Your task to perform on an android device: turn off notifications in google photos Image 0: 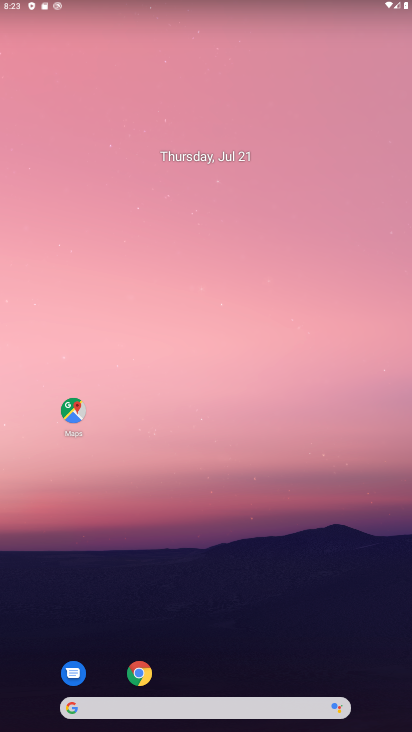
Step 0: drag from (166, 641) to (134, 264)
Your task to perform on an android device: turn off notifications in google photos Image 1: 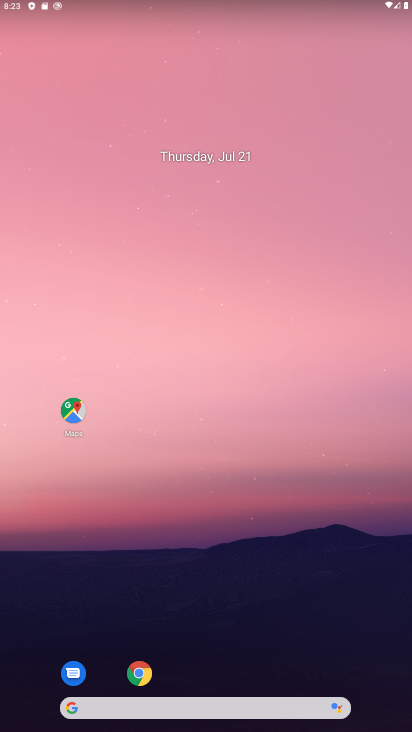
Step 1: drag from (240, 587) to (241, 233)
Your task to perform on an android device: turn off notifications in google photos Image 2: 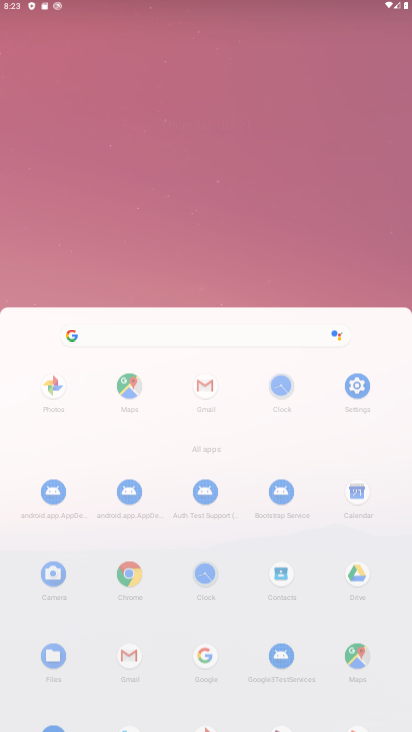
Step 2: drag from (265, 517) to (181, 105)
Your task to perform on an android device: turn off notifications in google photos Image 3: 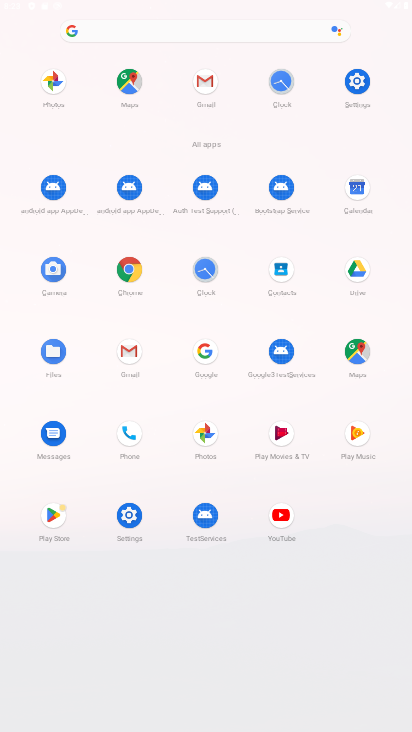
Step 3: drag from (211, 616) to (219, 195)
Your task to perform on an android device: turn off notifications in google photos Image 4: 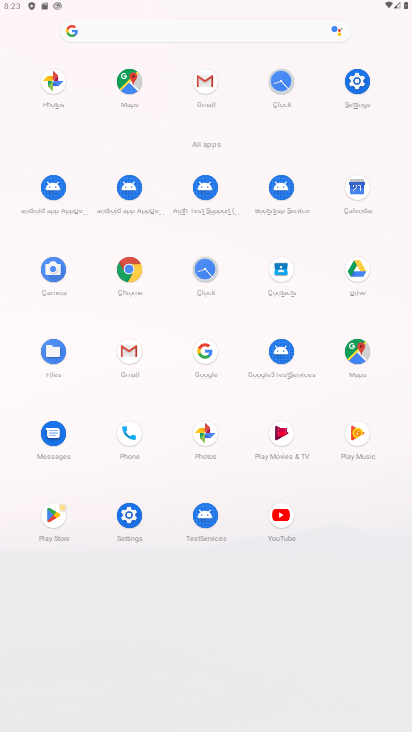
Step 4: click (202, 442)
Your task to perform on an android device: turn off notifications in google photos Image 5: 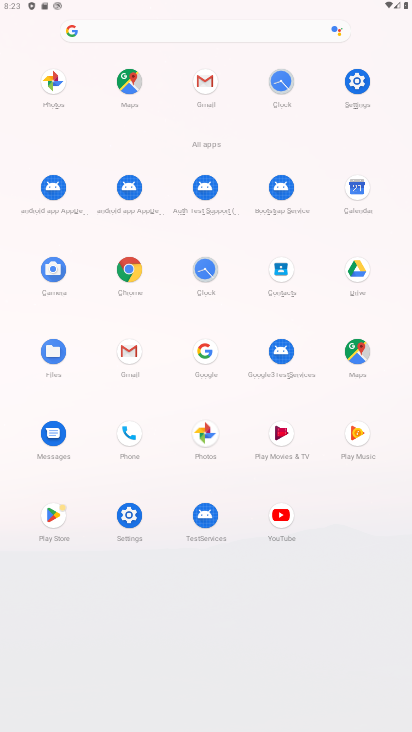
Step 5: click (202, 442)
Your task to perform on an android device: turn off notifications in google photos Image 6: 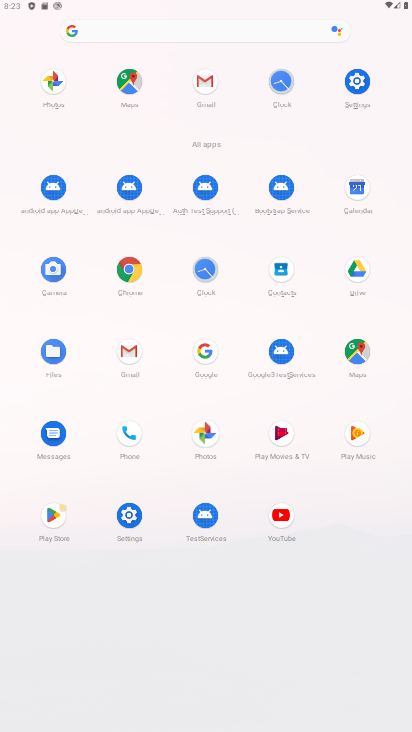
Step 6: click (202, 438)
Your task to perform on an android device: turn off notifications in google photos Image 7: 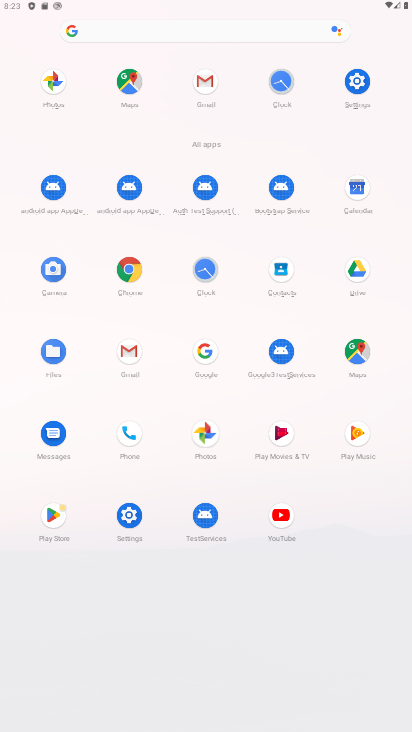
Step 7: click (202, 438)
Your task to perform on an android device: turn off notifications in google photos Image 8: 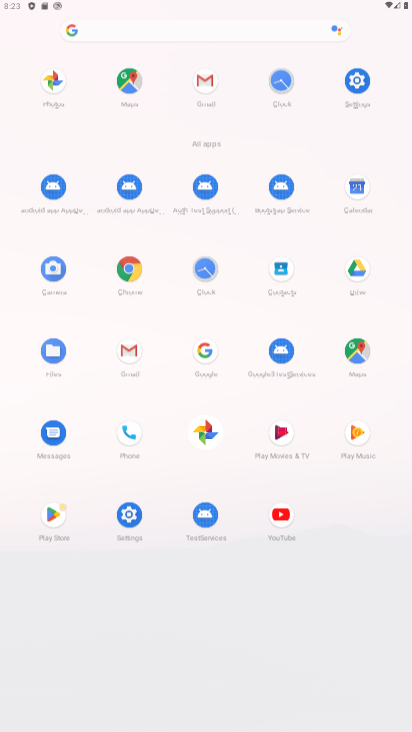
Step 8: click (202, 438)
Your task to perform on an android device: turn off notifications in google photos Image 9: 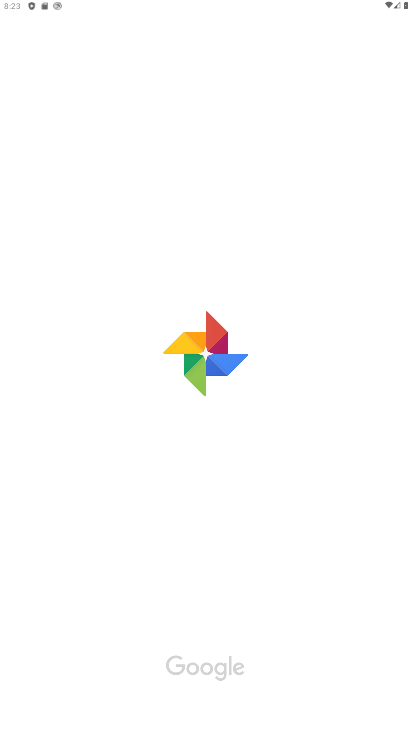
Step 9: click (202, 438)
Your task to perform on an android device: turn off notifications in google photos Image 10: 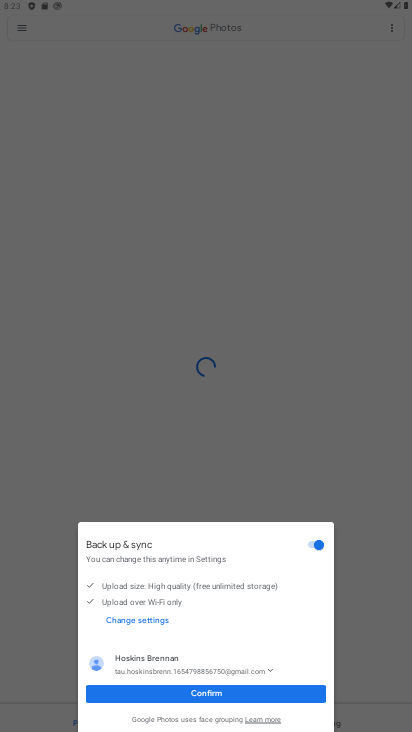
Step 10: click (223, 691)
Your task to perform on an android device: turn off notifications in google photos Image 11: 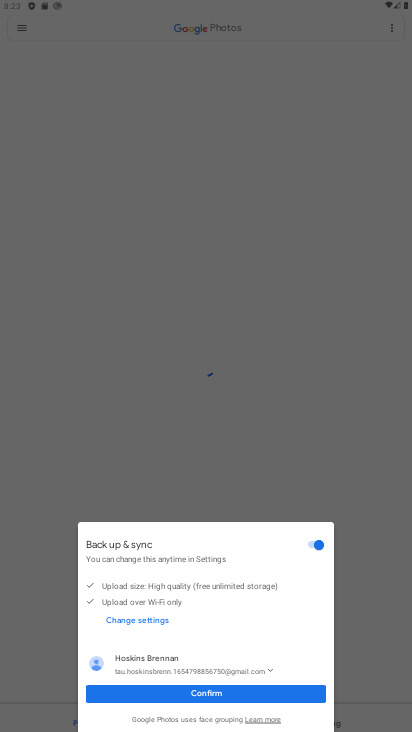
Step 11: click (223, 691)
Your task to perform on an android device: turn off notifications in google photos Image 12: 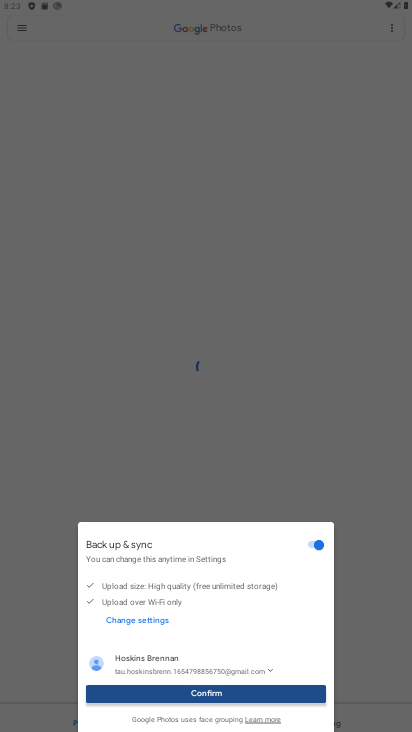
Step 12: click (223, 693)
Your task to perform on an android device: turn off notifications in google photos Image 13: 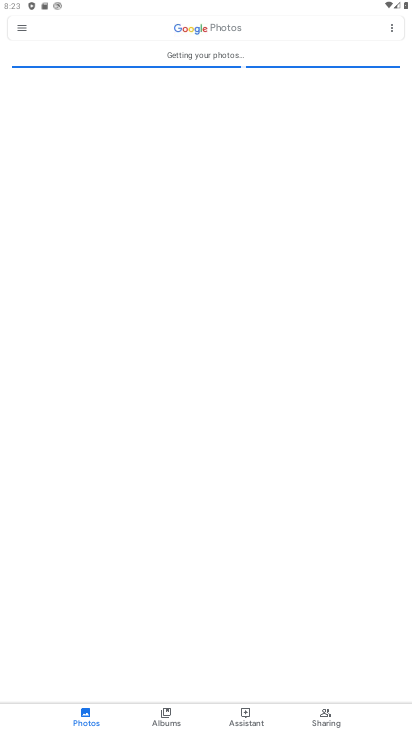
Step 13: click (239, 692)
Your task to perform on an android device: turn off notifications in google photos Image 14: 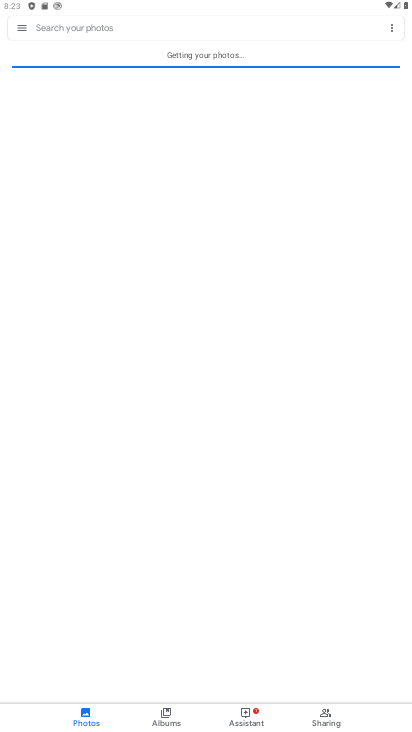
Step 14: click (19, 26)
Your task to perform on an android device: turn off notifications in google photos Image 15: 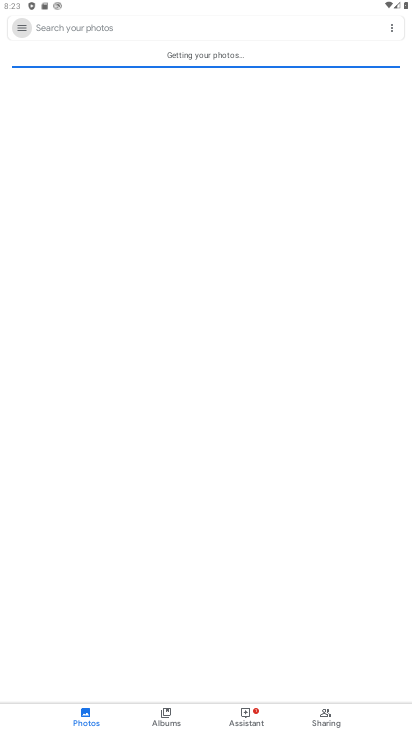
Step 15: click (19, 26)
Your task to perform on an android device: turn off notifications in google photos Image 16: 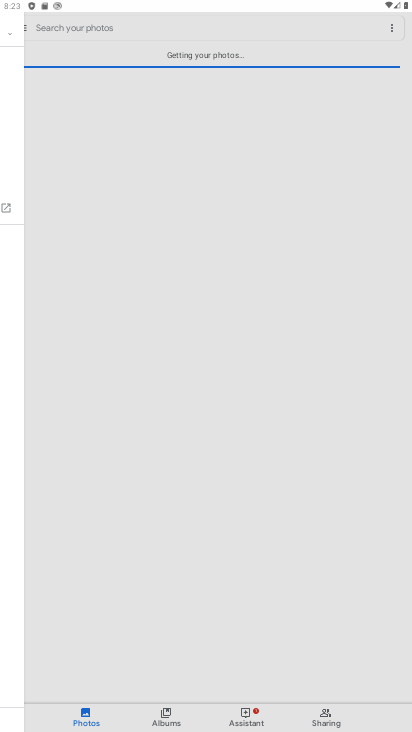
Step 16: click (20, 28)
Your task to perform on an android device: turn off notifications in google photos Image 17: 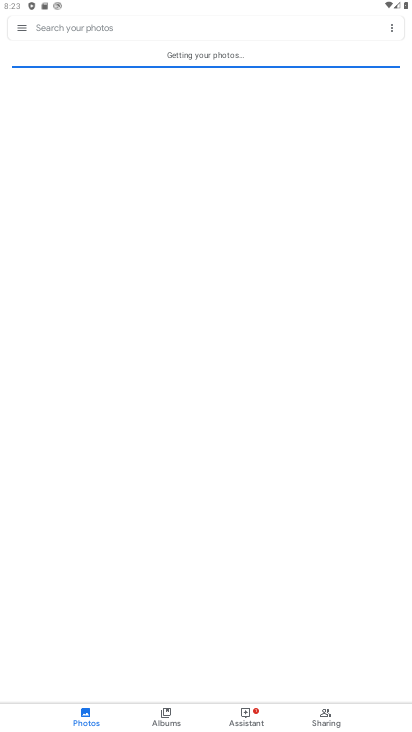
Step 17: click (21, 27)
Your task to perform on an android device: turn off notifications in google photos Image 18: 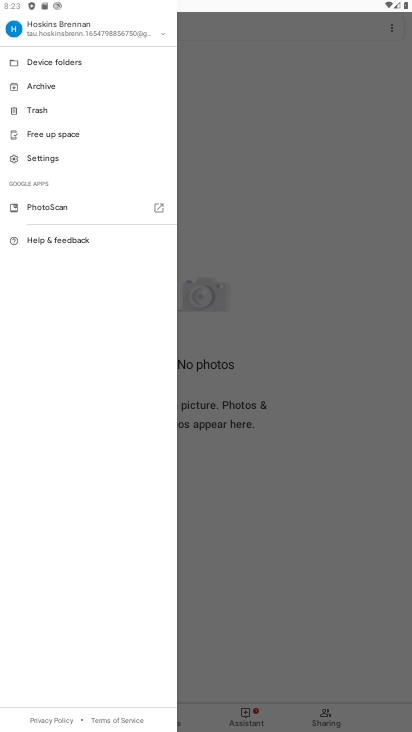
Step 18: click (21, 28)
Your task to perform on an android device: turn off notifications in google photos Image 19: 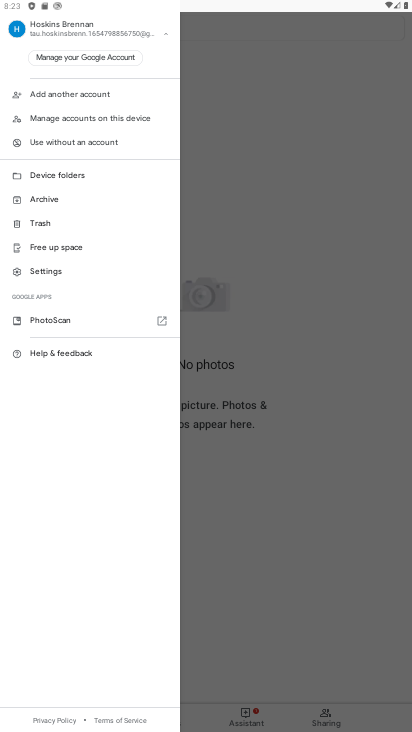
Step 19: click (58, 162)
Your task to perform on an android device: turn off notifications in google photos Image 20: 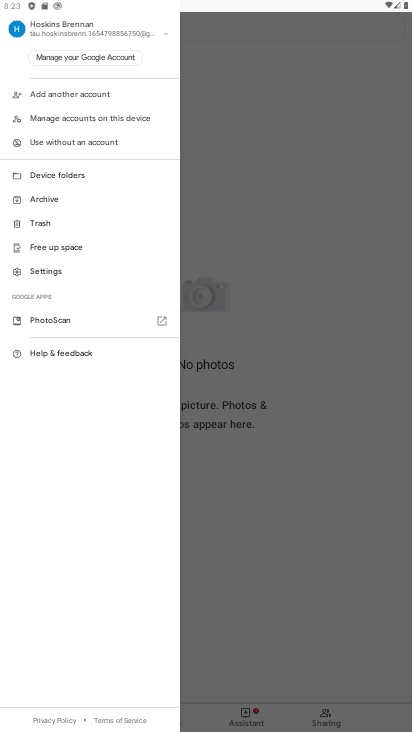
Step 20: click (50, 268)
Your task to perform on an android device: turn off notifications in google photos Image 21: 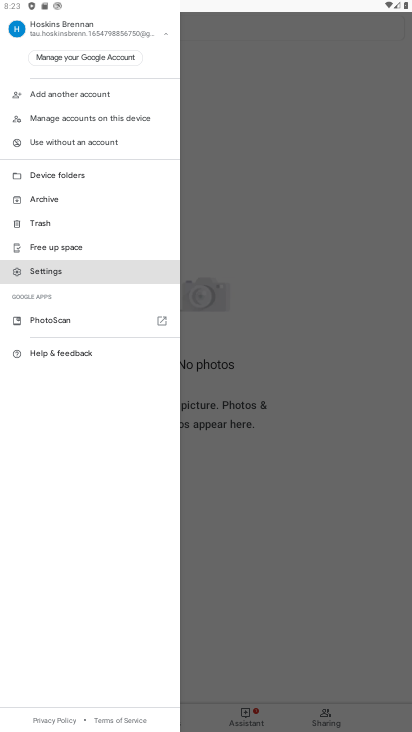
Step 21: click (50, 269)
Your task to perform on an android device: turn off notifications in google photos Image 22: 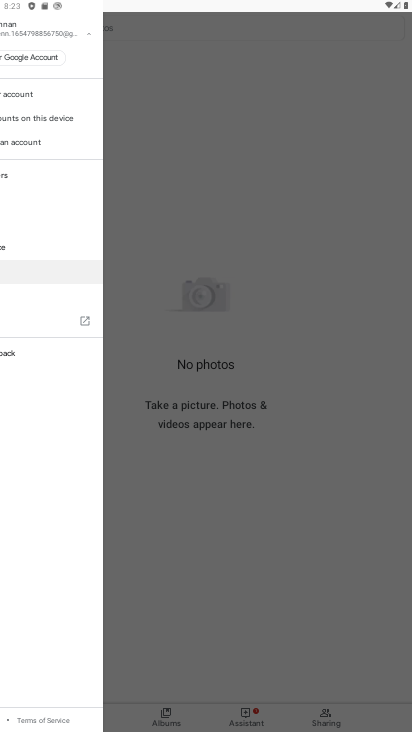
Step 22: click (51, 269)
Your task to perform on an android device: turn off notifications in google photos Image 23: 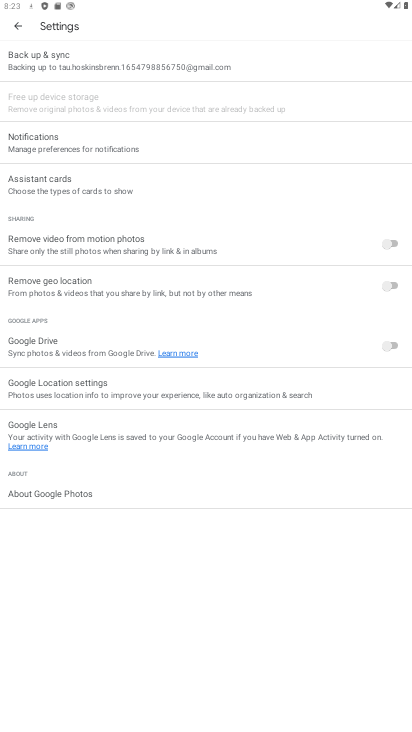
Step 23: click (55, 148)
Your task to perform on an android device: turn off notifications in google photos Image 24: 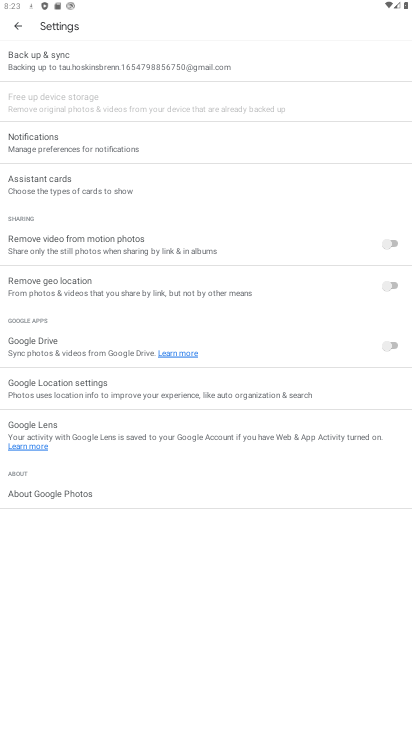
Step 24: click (55, 148)
Your task to perform on an android device: turn off notifications in google photos Image 25: 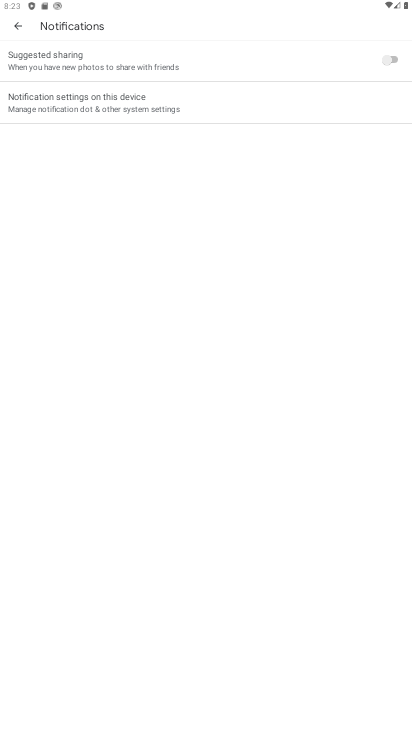
Step 25: task complete